Your task to perform on an android device: add a contact in the contacts app Image 0: 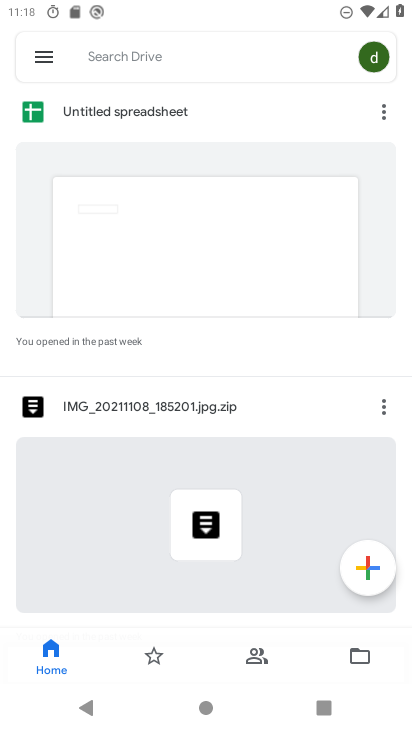
Step 0: press home button
Your task to perform on an android device: add a contact in the contacts app Image 1: 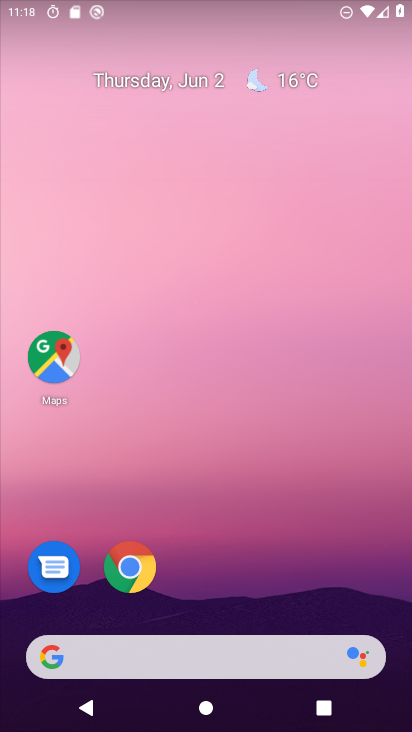
Step 1: drag from (138, 726) to (119, 212)
Your task to perform on an android device: add a contact in the contacts app Image 2: 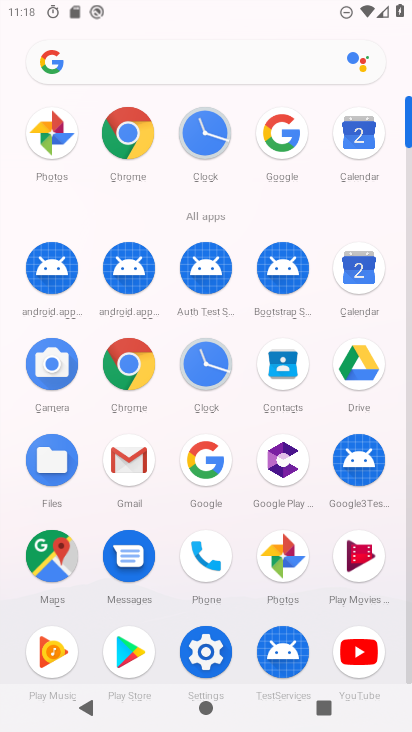
Step 2: click (290, 368)
Your task to perform on an android device: add a contact in the contacts app Image 3: 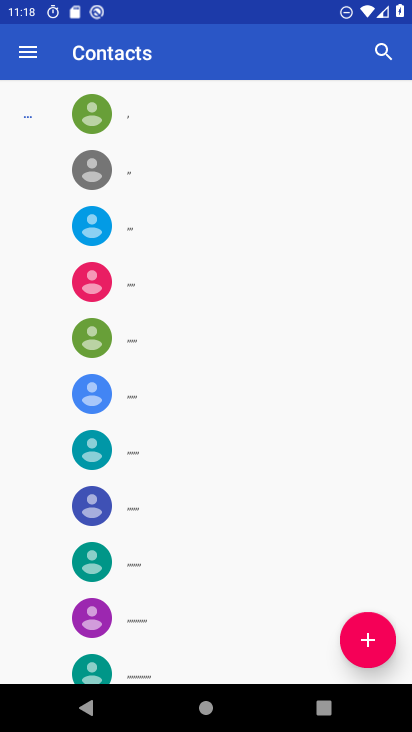
Step 3: click (370, 638)
Your task to perform on an android device: add a contact in the contacts app Image 4: 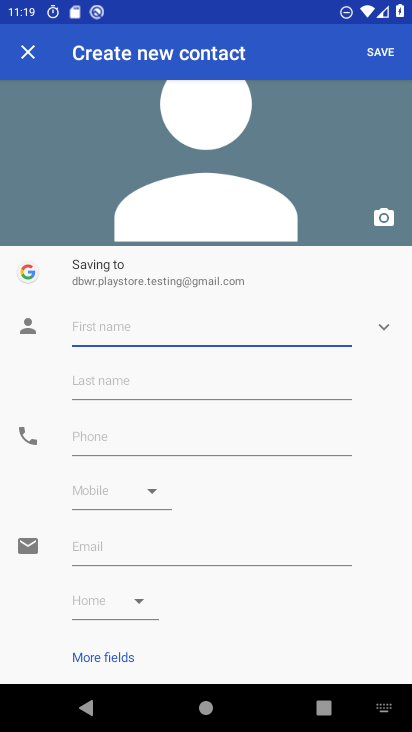
Step 4: type "gjgg"
Your task to perform on an android device: add a contact in the contacts app Image 5: 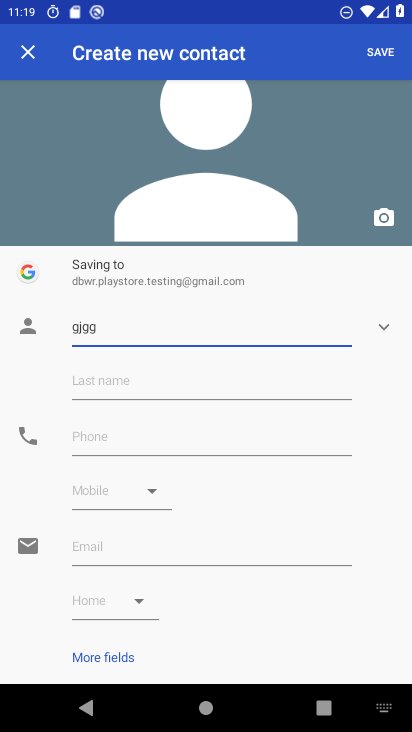
Step 5: click (179, 452)
Your task to perform on an android device: add a contact in the contacts app Image 6: 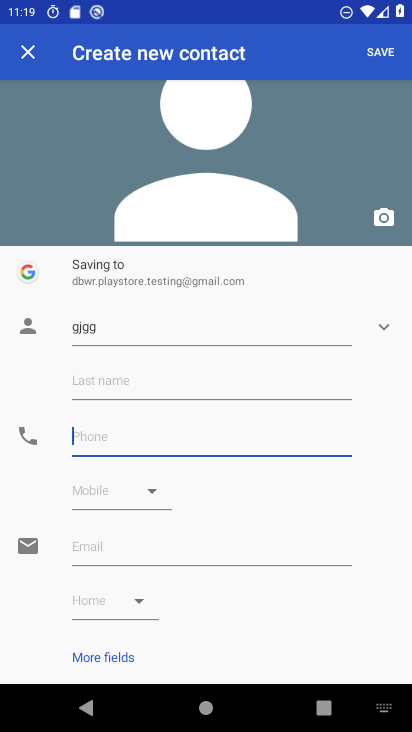
Step 6: type "9876543214"
Your task to perform on an android device: add a contact in the contacts app Image 7: 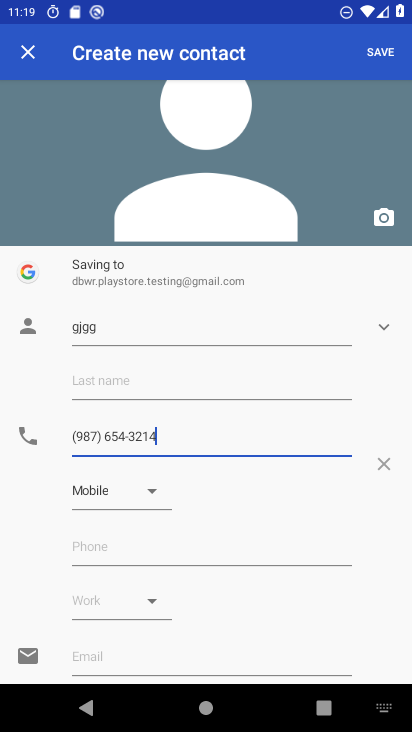
Step 7: click (389, 55)
Your task to perform on an android device: add a contact in the contacts app Image 8: 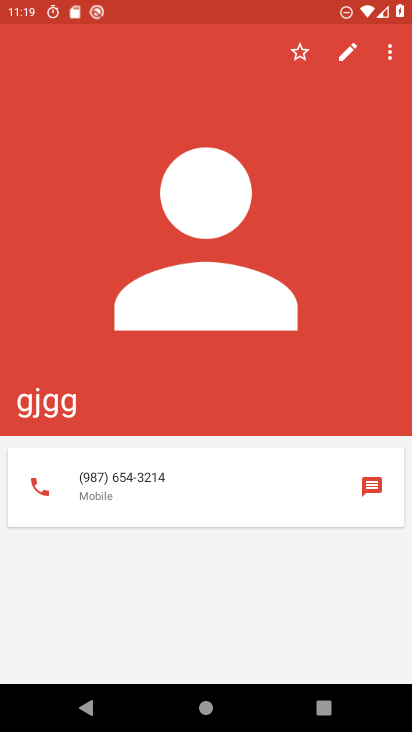
Step 8: task complete